Your task to perform on an android device: turn pop-ups on in chrome Image 0: 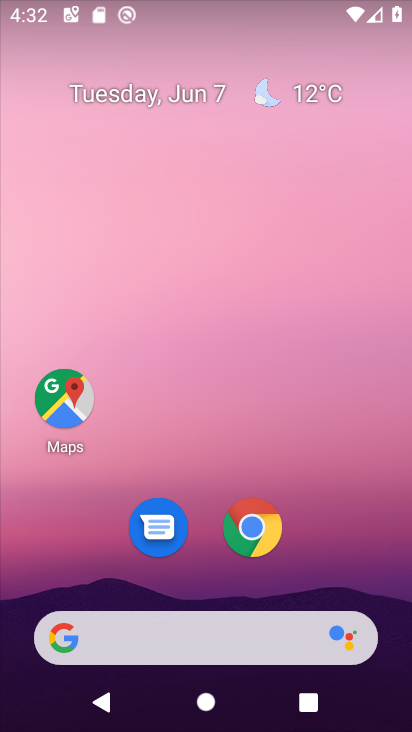
Step 0: drag from (215, 550) to (303, 198)
Your task to perform on an android device: turn pop-ups on in chrome Image 1: 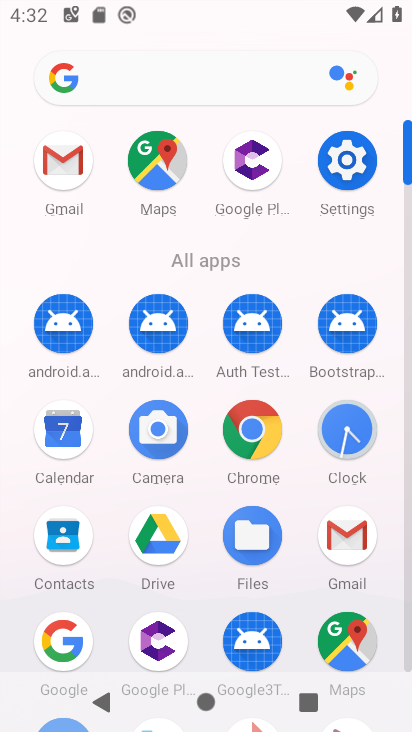
Step 1: click (265, 440)
Your task to perform on an android device: turn pop-ups on in chrome Image 2: 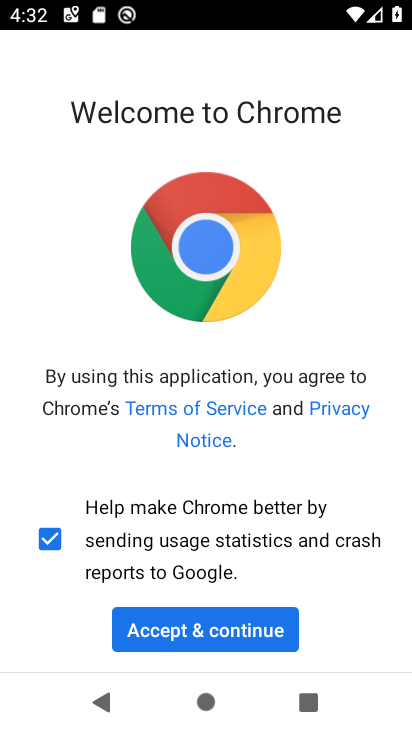
Step 2: click (216, 644)
Your task to perform on an android device: turn pop-ups on in chrome Image 3: 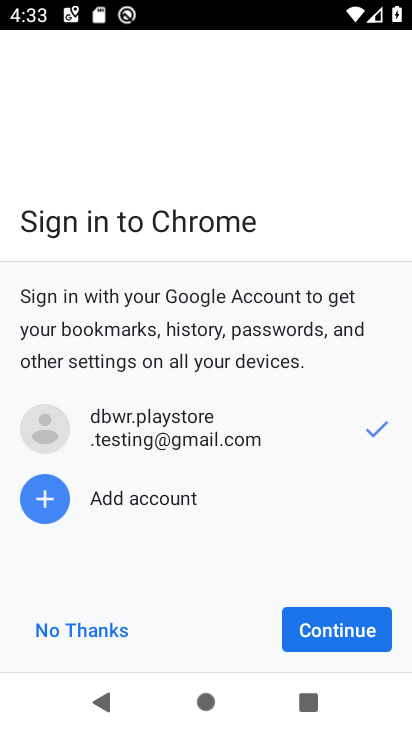
Step 3: click (374, 625)
Your task to perform on an android device: turn pop-ups on in chrome Image 4: 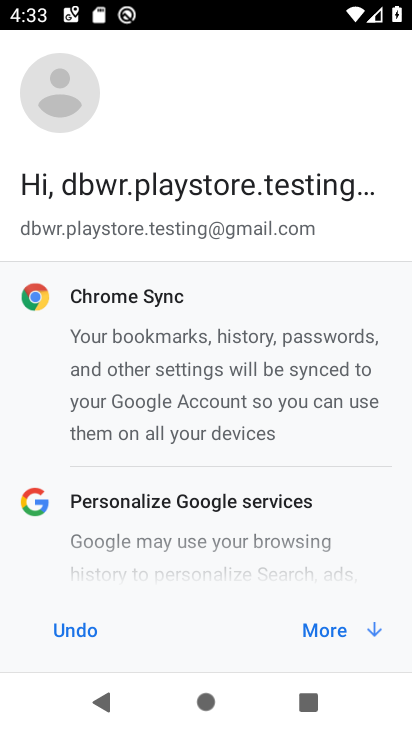
Step 4: click (345, 632)
Your task to perform on an android device: turn pop-ups on in chrome Image 5: 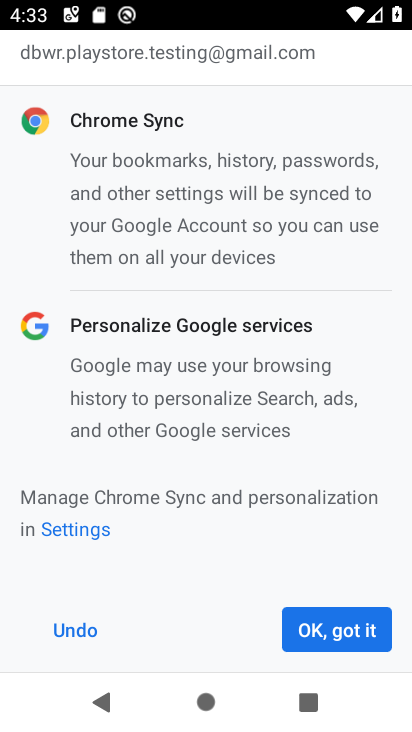
Step 5: click (342, 641)
Your task to perform on an android device: turn pop-ups on in chrome Image 6: 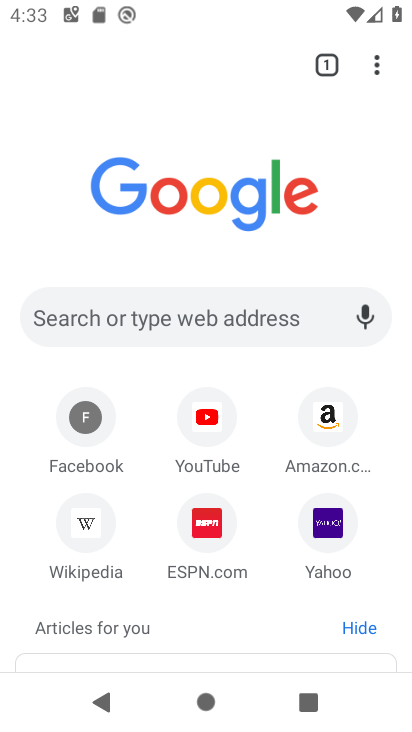
Step 6: task complete